Your task to perform on an android device: Go to Amazon Image 0: 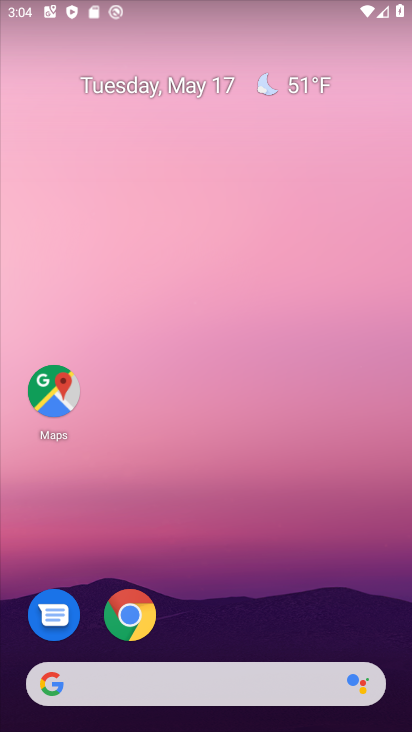
Step 0: press home button
Your task to perform on an android device: Go to Amazon Image 1: 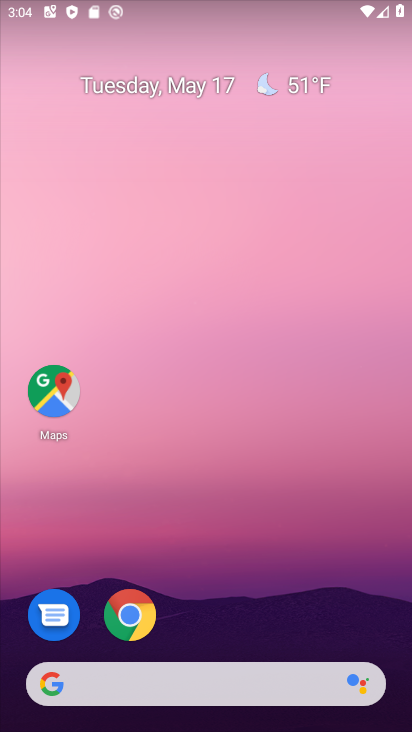
Step 1: click (134, 618)
Your task to perform on an android device: Go to Amazon Image 2: 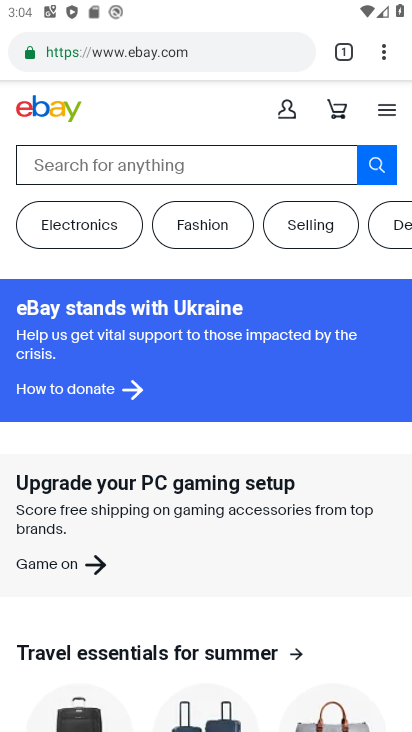
Step 2: click (341, 47)
Your task to perform on an android device: Go to Amazon Image 3: 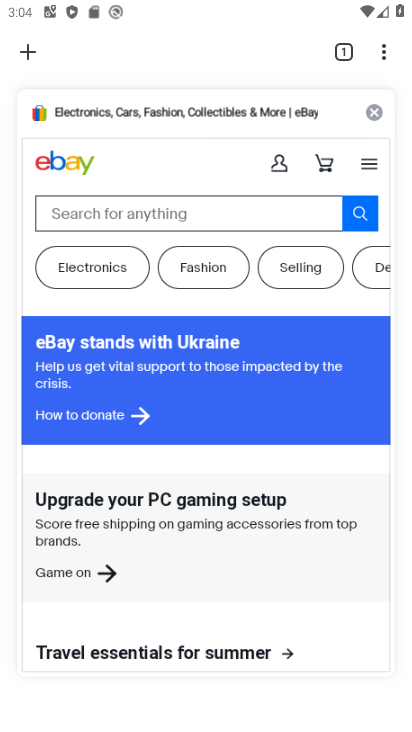
Step 3: click (374, 108)
Your task to perform on an android device: Go to Amazon Image 4: 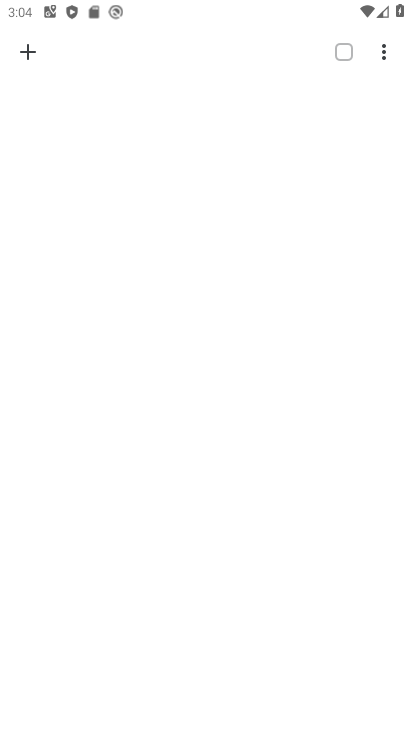
Step 4: click (35, 52)
Your task to perform on an android device: Go to Amazon Image 5: 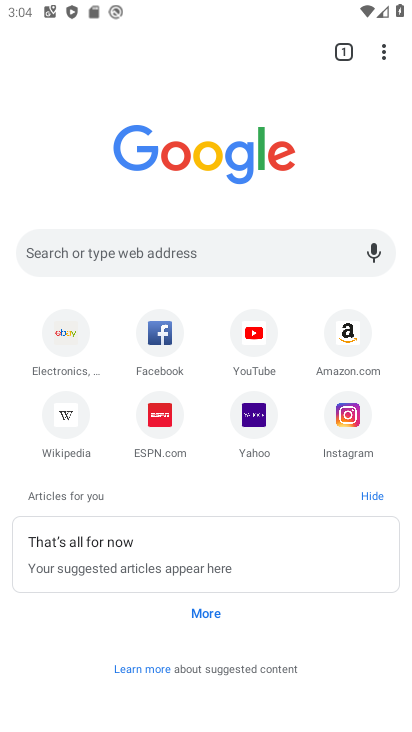
Step 5: click (336, 332)
Your task to perform on an android device: Go to Amazon Image 6: 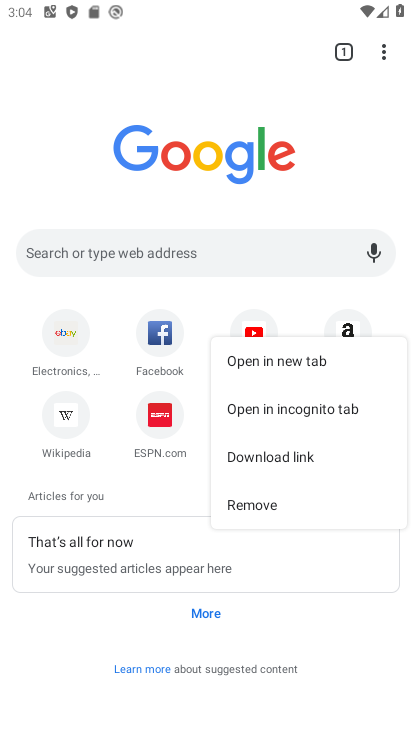
Step 6: click (346, 314)
Your task to perform on an android device: Go to Amazon Image 7: 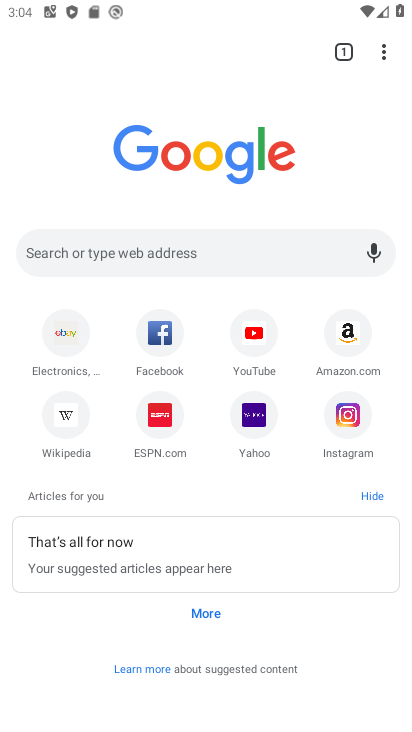
Step 7: click (352, 341)
Your task to perform on an android device: Go to Amazon Image 8: 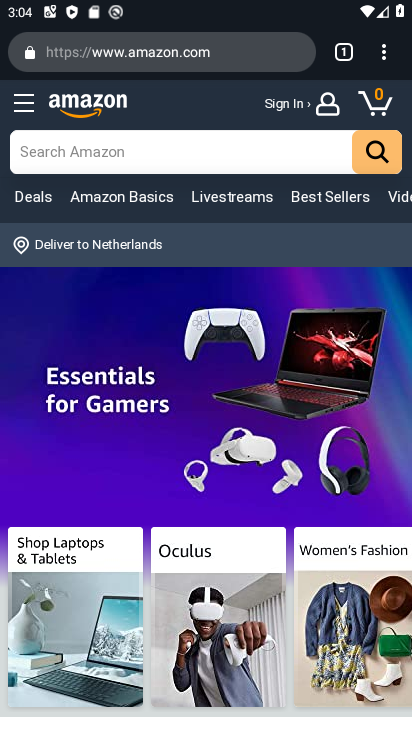
Step 8: task complete